Your task to perform on an android device: toggle priority inbox in the gmail app Image 0: 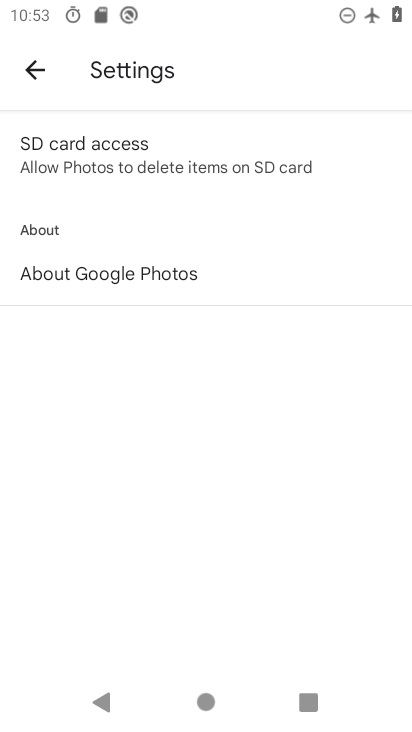
Step 0: press home button
Your task to perform on an android device: toggle priority inbox in the gmail app Image 1: 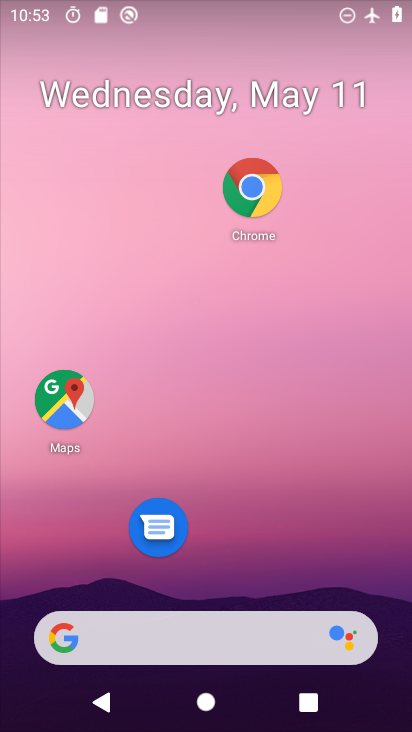
Step 1: drag from (181, 581) to (323, 40)
Your task to perform on an android device: toggle priority inbox in the gmail app Image 2: 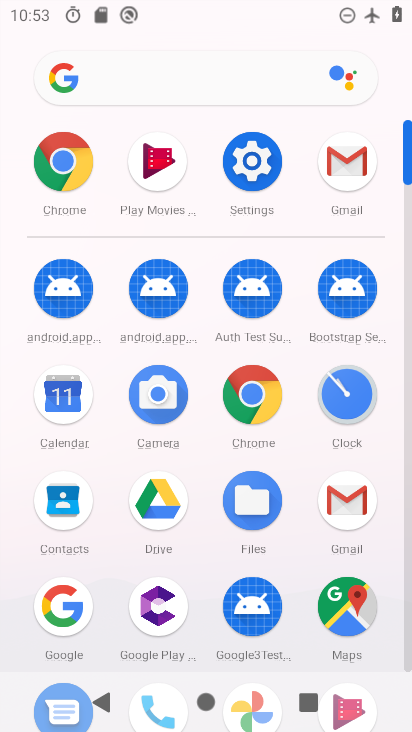
Step 2: click (358, 516)
Your task to perform on an android device: toggle priority inbox in the gmail app Image 3: 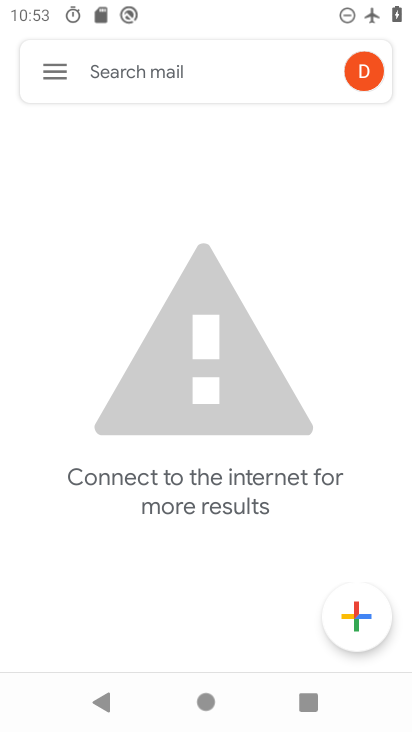
Step 3: click (63, 66)
Your task to perform on an android device: toggle priority inbox in the gmail app Image 4: 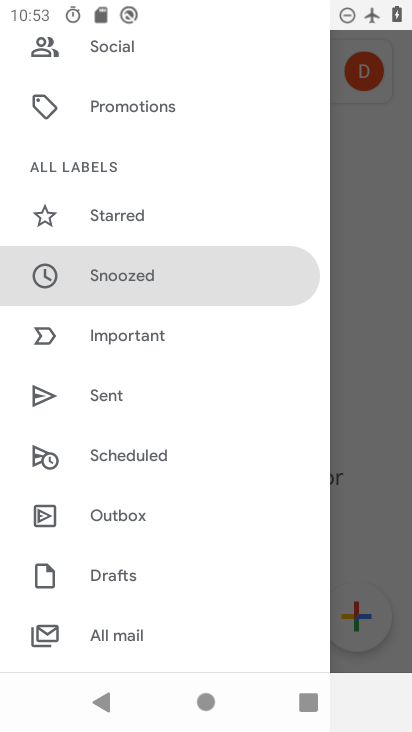
Step 4: drag from (170, 440) to (191, 191)
Your task to perform on an android device: toggle priority inbox in the gmail app Image 5: 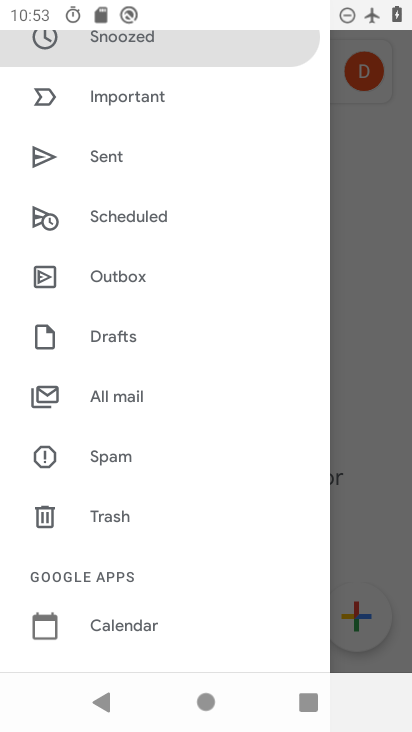
Step 5: drag from (149, 560) to (229, 79)
Your task to perform on an android device: toggle priority inbox in the gmail app Image 6: 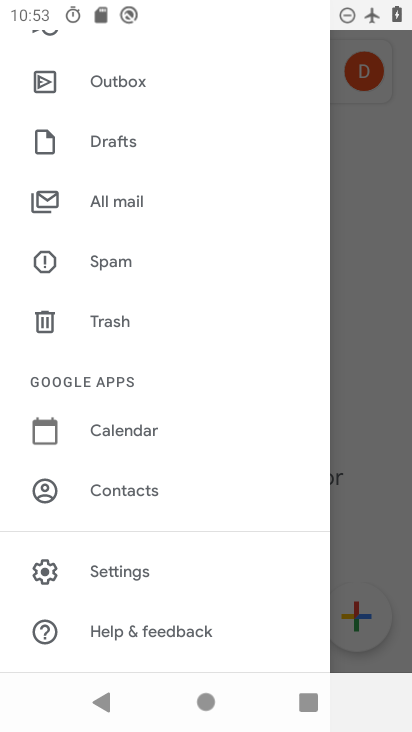
Step 6: click (143, 563)
Your task to perform on an android device: toggle priority inbox in the gmail app Image 7: 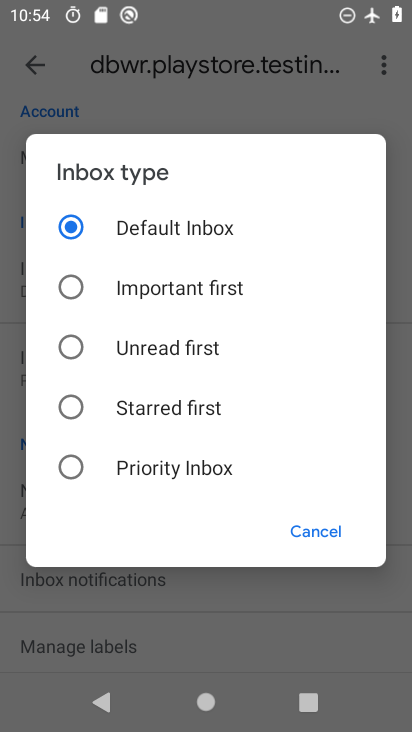
Step 7: click (114, 479)
Your task to perform on an android device: toggle priority inbox in the gmail app Image 8: 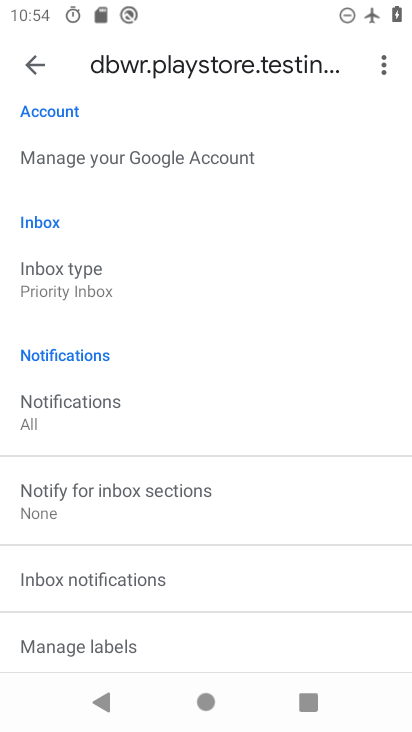
Step 8: task complete